Your task to perform on an android device: Show me recent news Image 0: 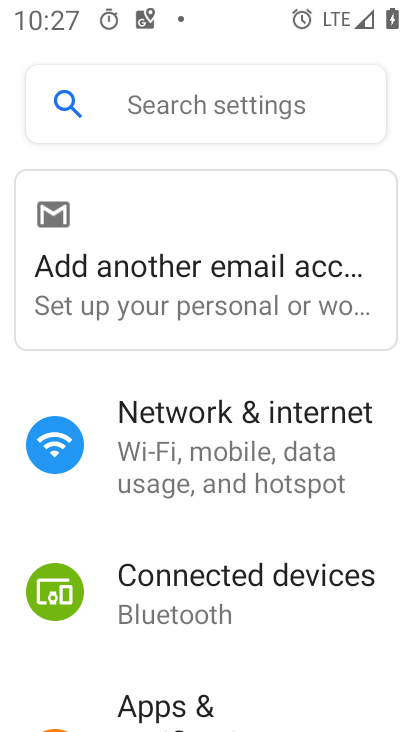
Step 0: press home button
Your task to perform on an android device: Show me recent news Image 1: 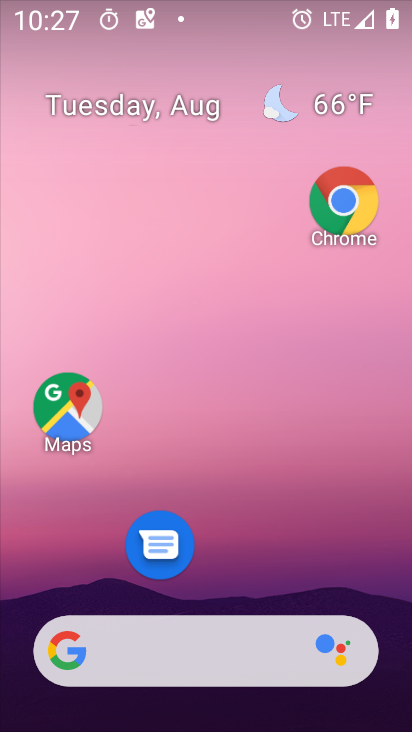
Step 1: drag from (198, 589) to (213, 52)
Your task to perform on an android device: Show me recent news Image 2: 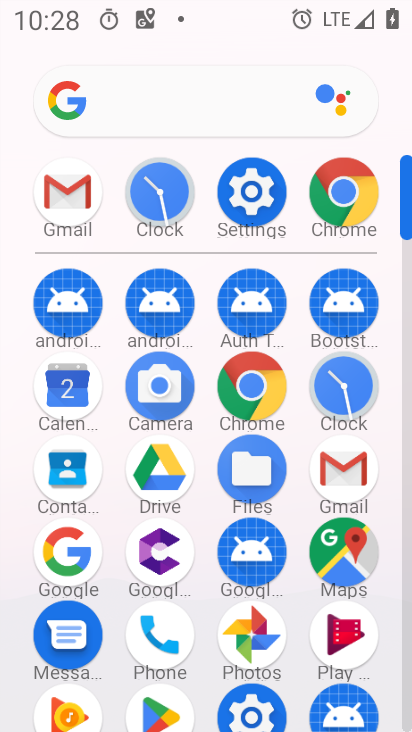
Step 2: click (79, 555)
Your task to perform on an android device: Show me recent news Image 3: 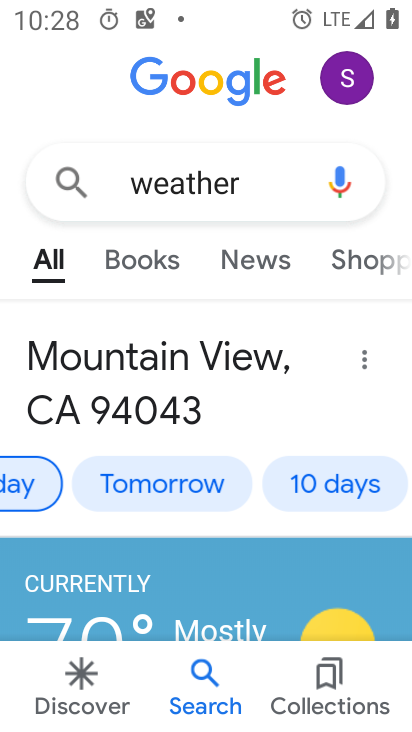
Step 3: click (276, 175)
Your task to perform on an android device: Show me recent news Image 4: 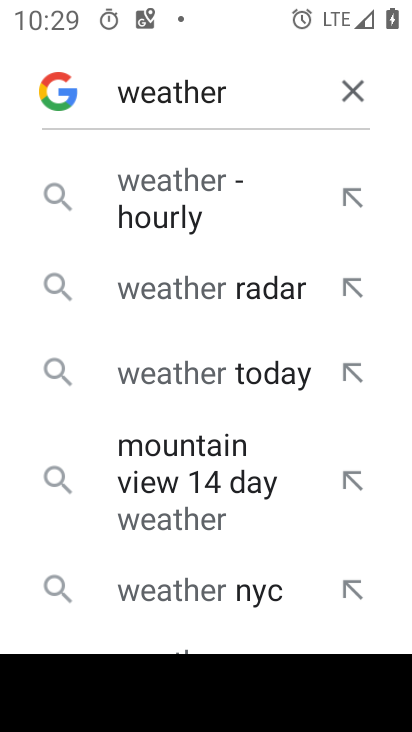
Step 4: click (361, 84)
Your task to perform on an android device: Show me recent news Image 5: 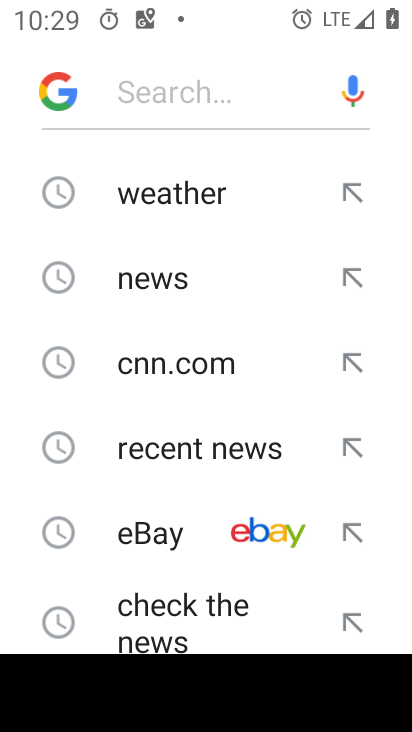
Step 5: click (214, 274)
Your task to perform on an android device: Show me recent news Image 6: 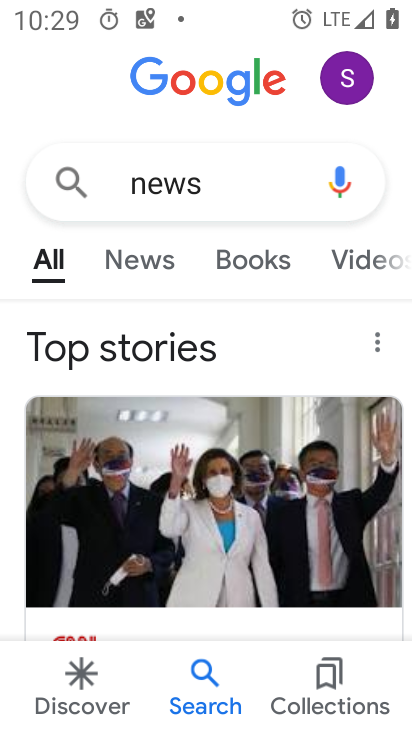
Step 6: click (125, 262)
Your task to perform on an android device: Show me recent news Image 7: 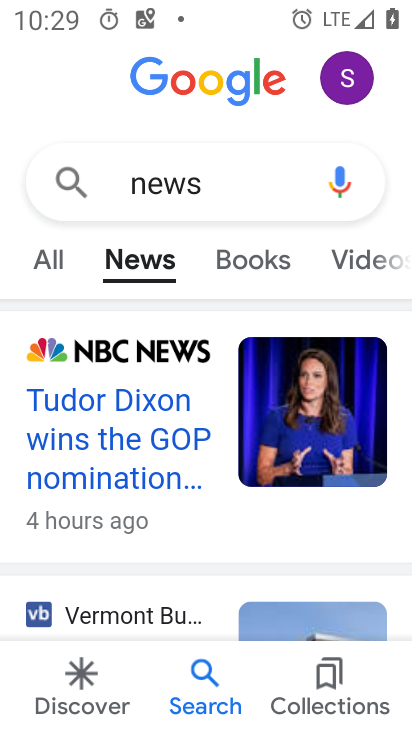
Step 7: task complete